Your task to perform on an android device: Set the phone to "Do not disturb". Image 0: 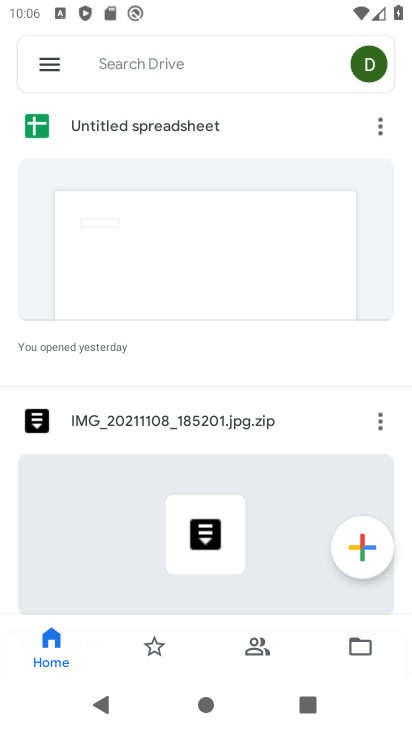
Step 0: drag from (212, 14) to (104, 484)
Your task to perform on an android device: Set the phone to "Do not disturb". Image 1: 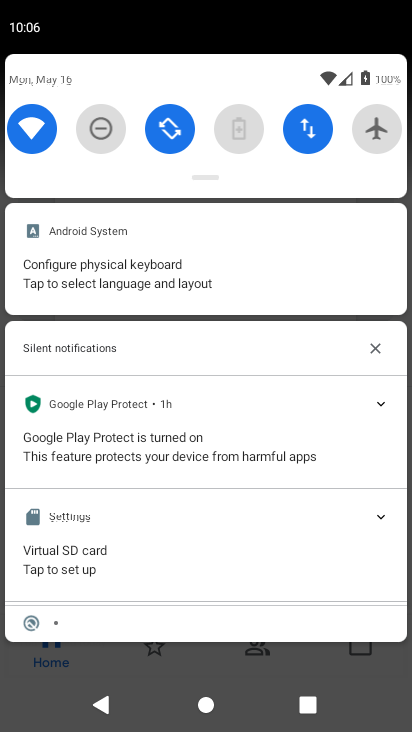
Step 1: click (108, 136)
Your task to perform on an android device: Set the phone to "Do not disturb". Image 2: 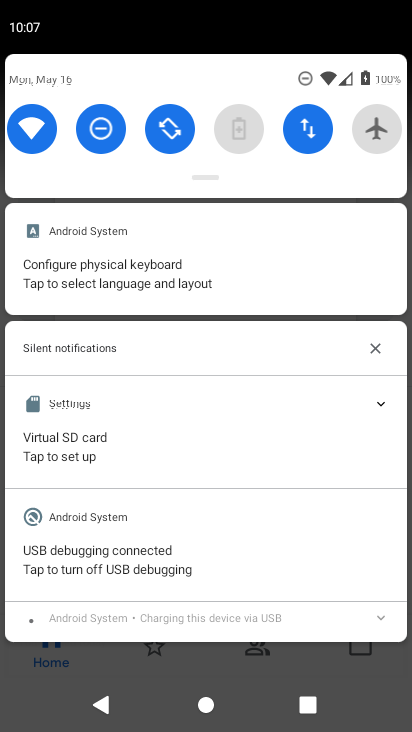
Step 2: task complete